Your task to perform on an android device: Show me recent news Image 0: 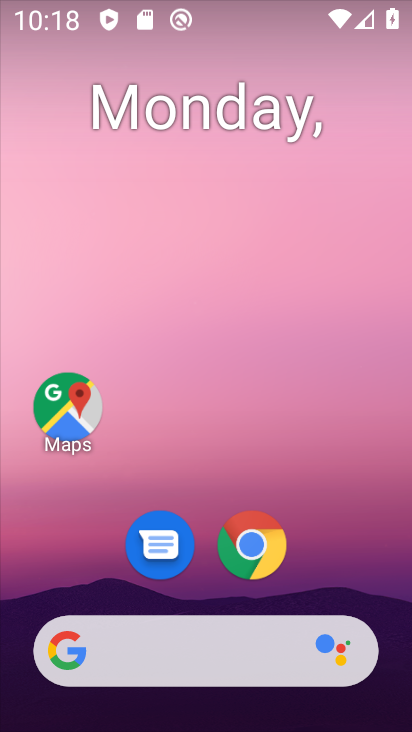
Step 0: drag from (340, 523) to (323, 114)
Your task to perform on an android device: Show me recent news Image 1: 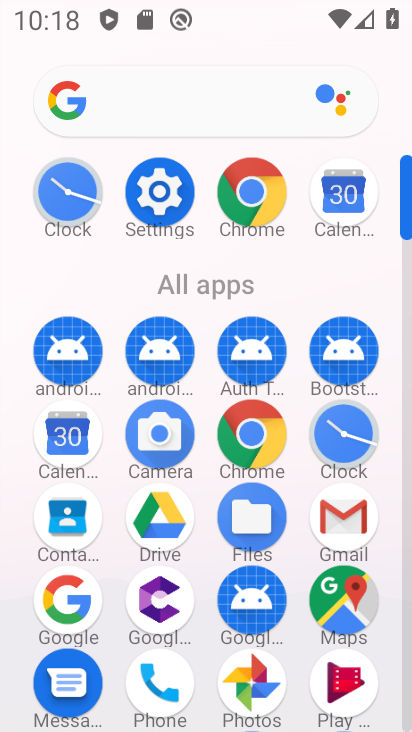
Step 1: click (248, 196)
Your task to perform on an android device: Show me recent news Image 2: 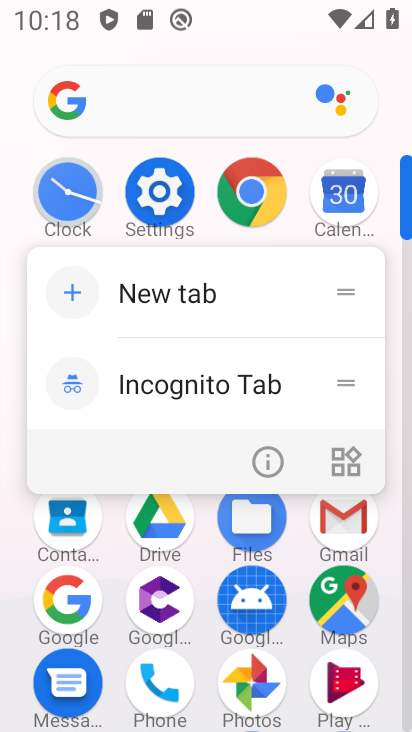
Step 2: click (259, 201)
Your task to perform on an android device: Show me recent news Image 3: 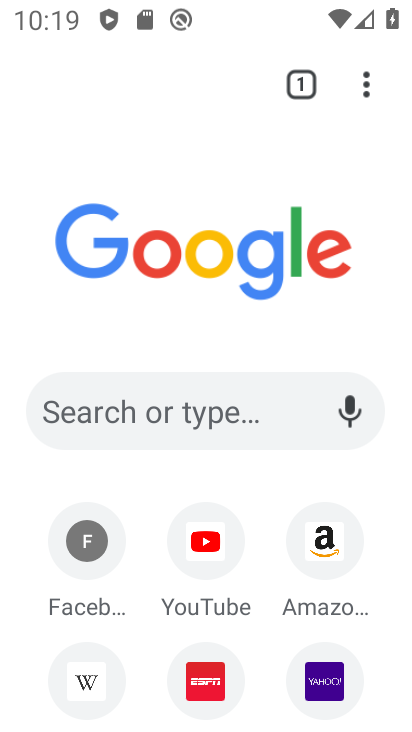
Step 3: click (210, 380)
Your task to perform on an android device: Show me recent news Image 4: 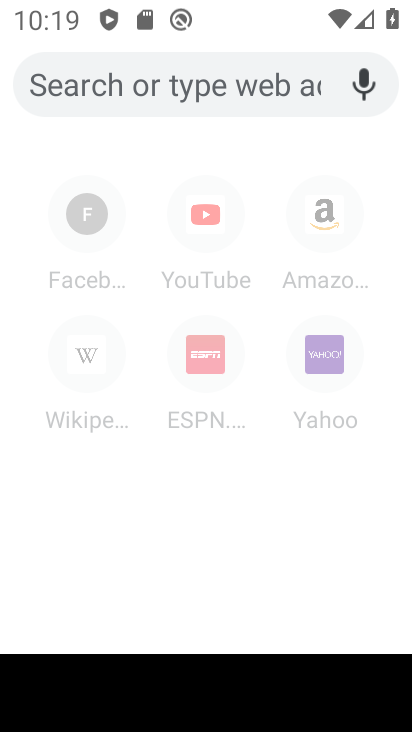
Step 4: type "recent news"
Your task to perform on an android device: Show me recent news Image 5: 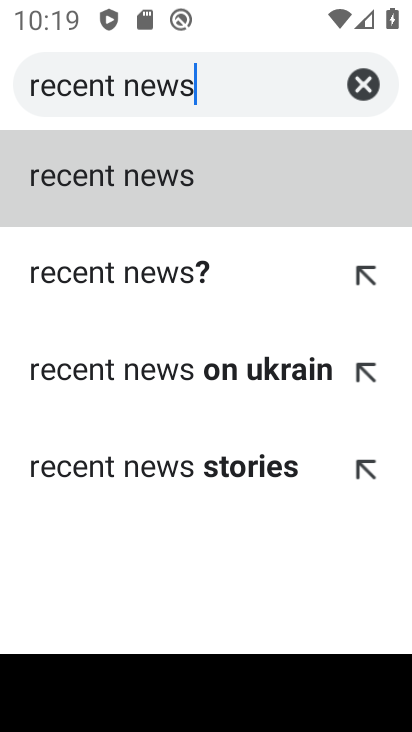
Step 5: click (145, 163)
Your task to perform on an android device: Show me recent news Image 6: 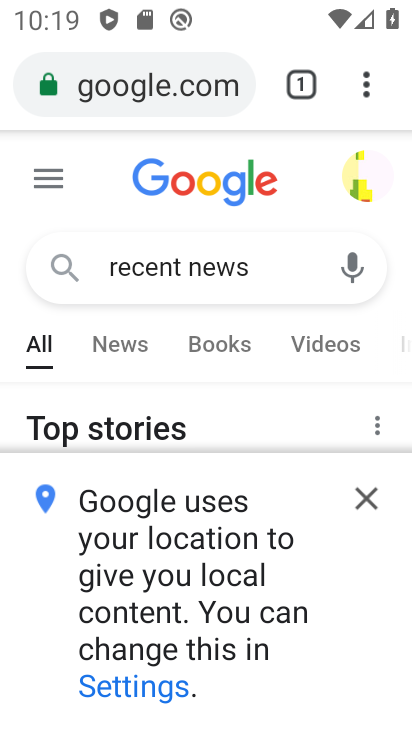
Step 6: click (362, 504)
Your task to perform on an android device: Show me recent news Image 7: 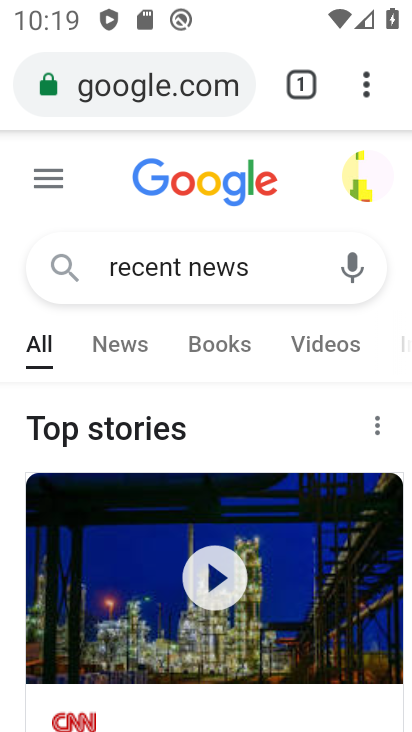
Step 7: task complete